Your task to perform on an android device: Open battery settings Image 0: 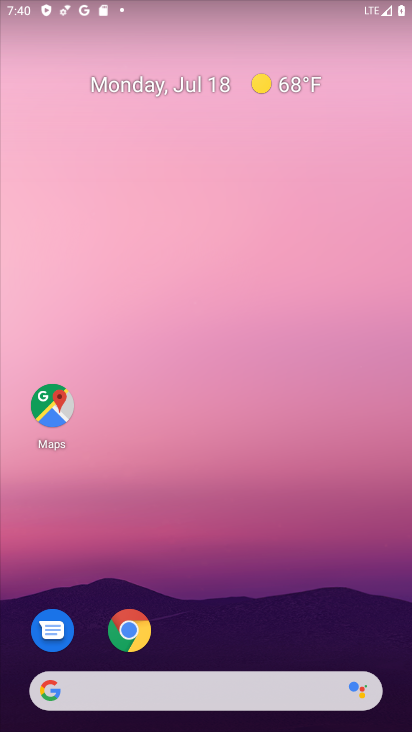
Step 0: drag from (263, 622) to (303, 191)
Your task to perform on an android device: Open battery settings Image 1: 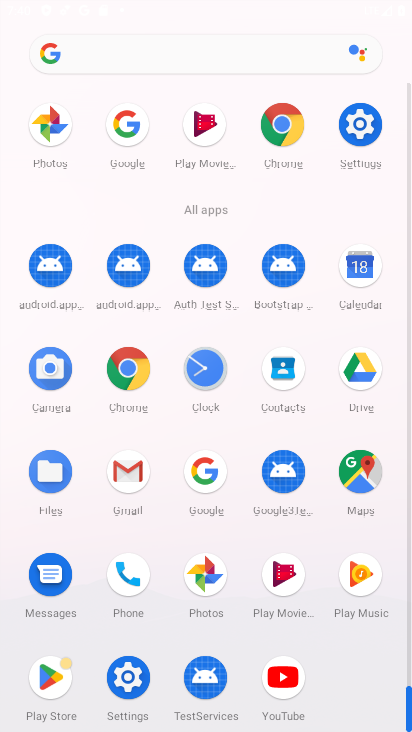
Step 1: click (356, 162)
Your task to perform on an android device: Open battery settings Image 2: 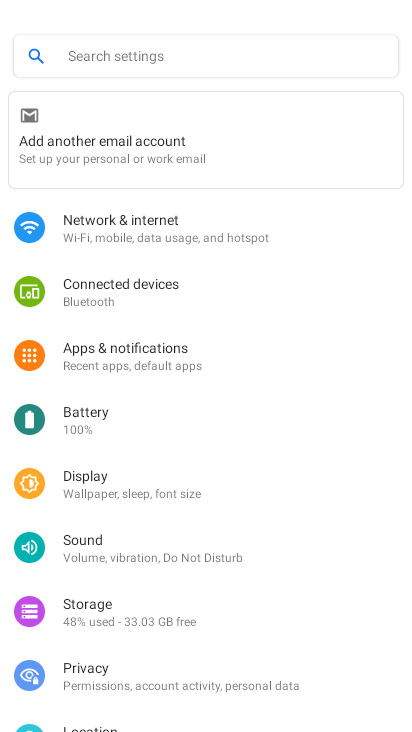
Step 2: click (135, 424)
Your task to perform on an android device: Open battery settings Image 3: 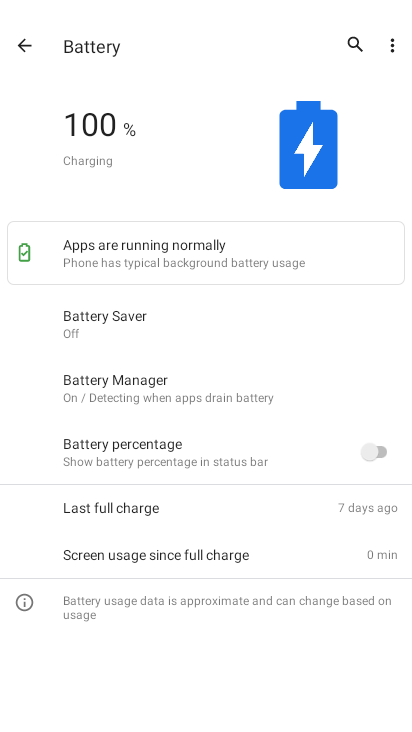
Step 3: task complete